Your task to perform on an android device: Go to Yahoo.com Image 0: 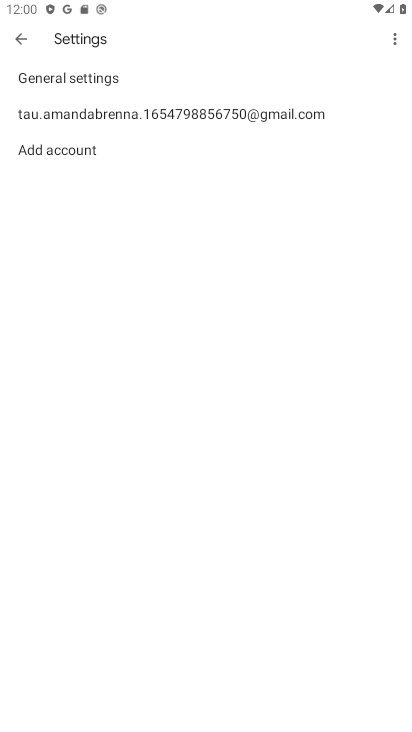
Step 0: press home button
Your task to perform on an android device: Go to Yahoo.com Image 1: 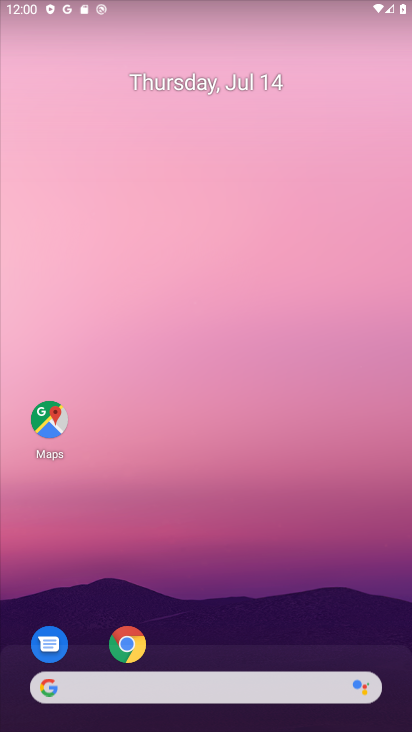
Step 1: click (178, 4)
Your task to perform on an android device: Go to Yahoo.com Image 2: 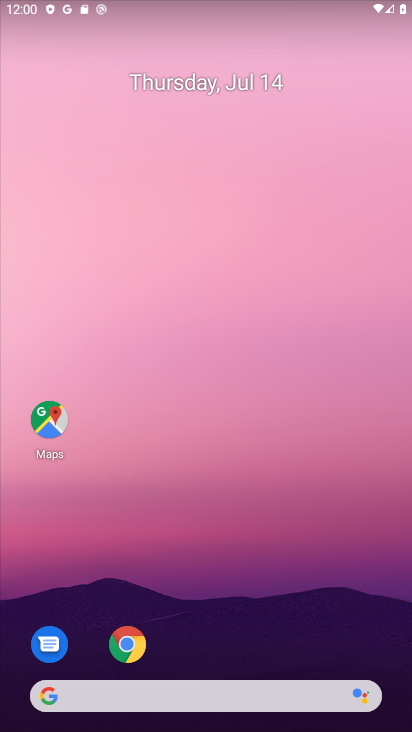
Step 2: click (241, 21)
Your task to perform on an android device: Go to Yahoo.com Image 3: 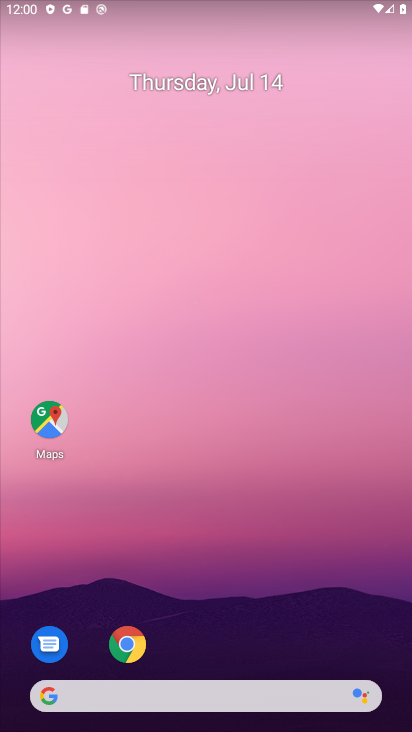
Step 3: drag from (285, 493) to (283, 0)
Your task to perform on an android device: Go to Yahoo.com Image 4: 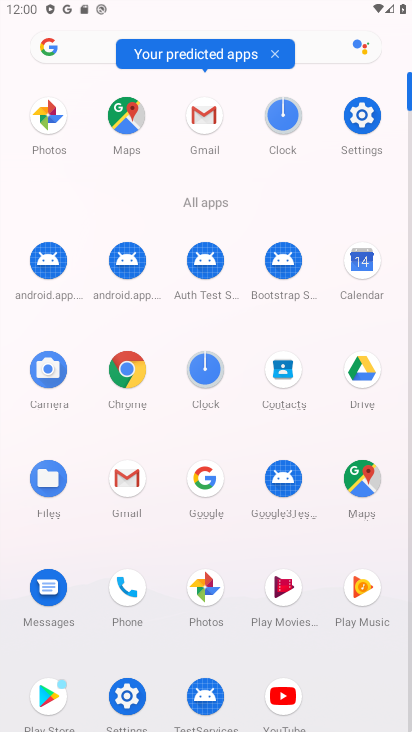
Step 4: click (135, 374)
Your task to perform on an android device: Go to Yahoo.com Image 5: 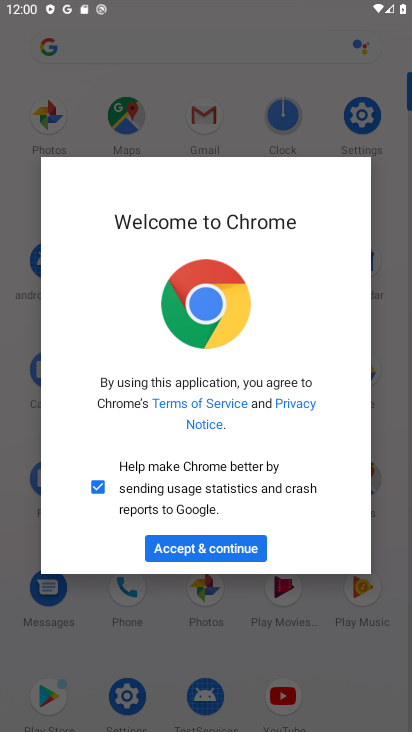
Step 5: click (203, 552)
Your task to perform on an android device: Go to Yahoo.com Image 6: 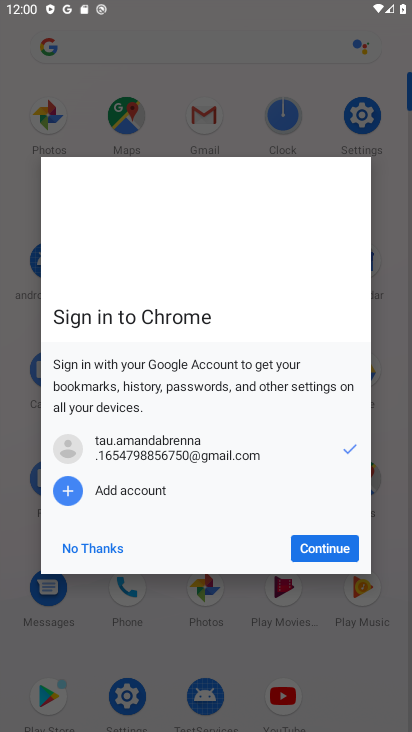
Step 6: click (95, 544)
Your task to perform on an android device: Go to Yahoo.com Image 7: 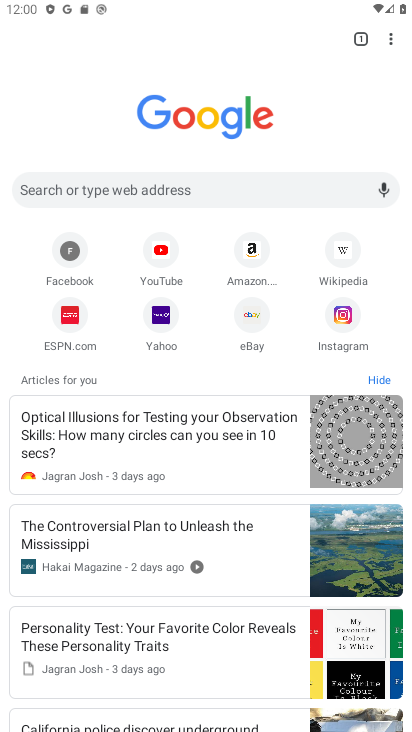
Step 7: click (164, 309)
Your task to perform on an android device: Go to Yahoo.com Image 8: 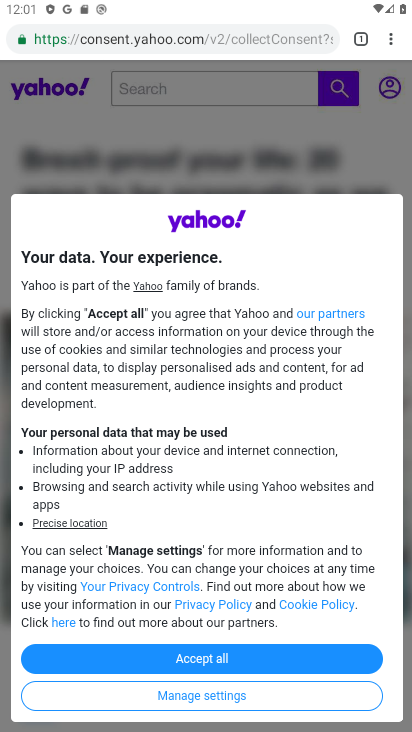
Step 8: task complete